Your task to perform on an android device: Open the map Image 0: 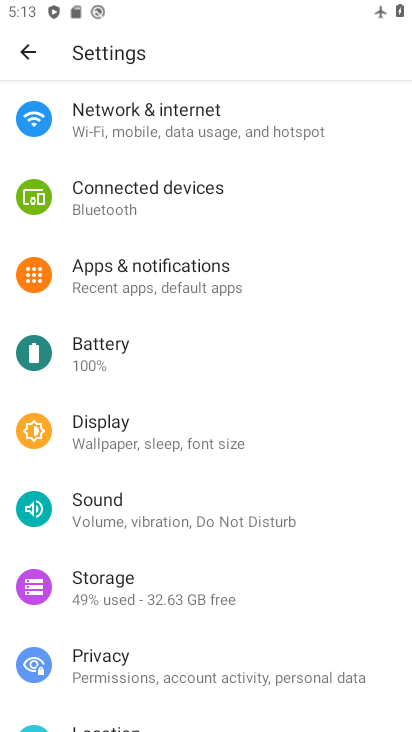
Step 0: press back button
Your task to perform on an android device: Open the map Image 1: 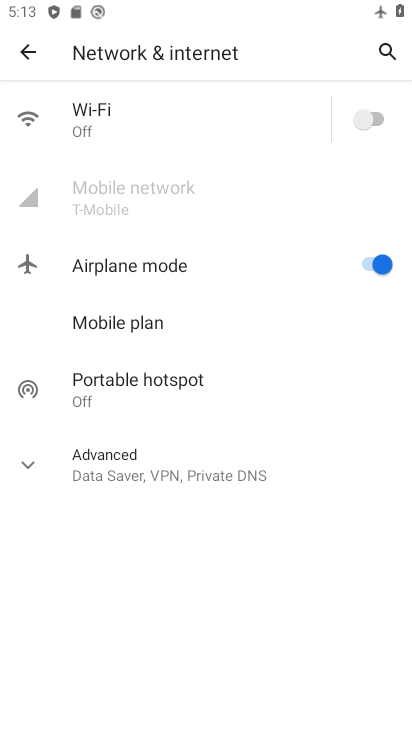
Step 1: press back button
Your task to perform on an android device: Open the map Image 2: 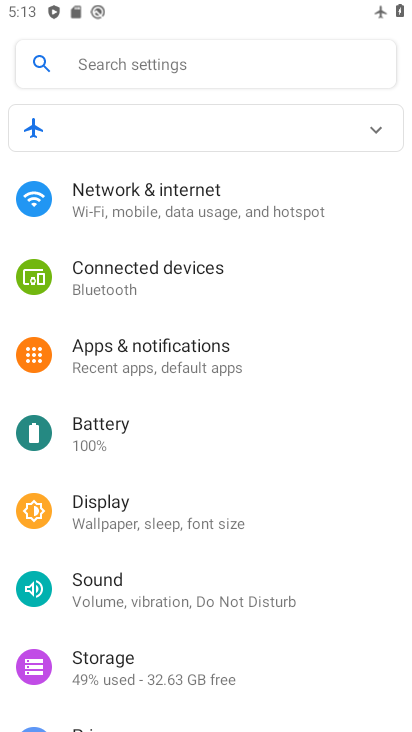
Step 2: press back button
Your task to perform on an android device: Open the map Image 3: 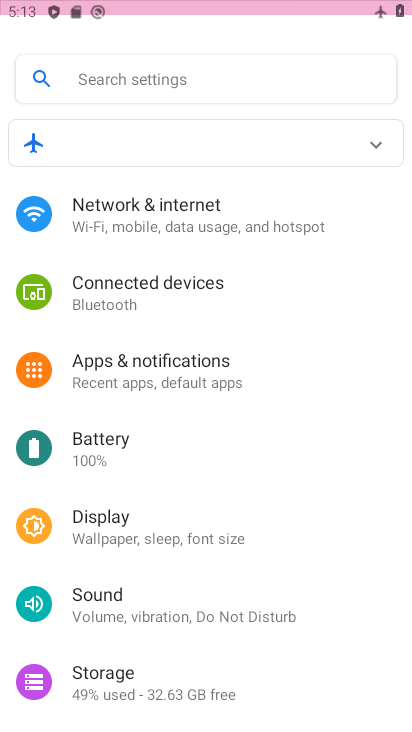
Step 3: press home button
Your task to perform on an android device: Open the map Image 4: 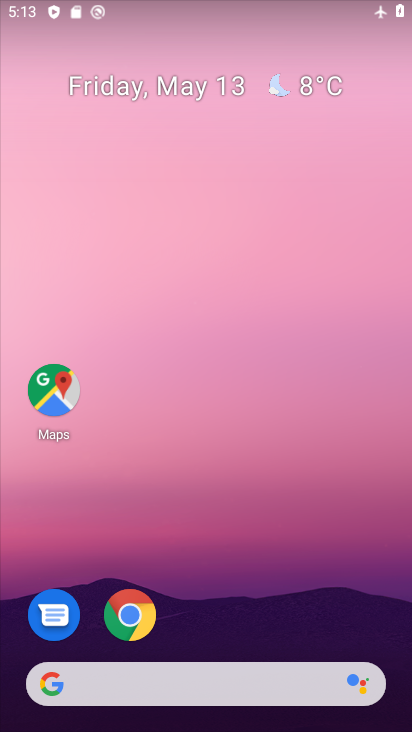
Step 4: click (56, 386)
Your task to perform on an android device: Open the map Image 5: 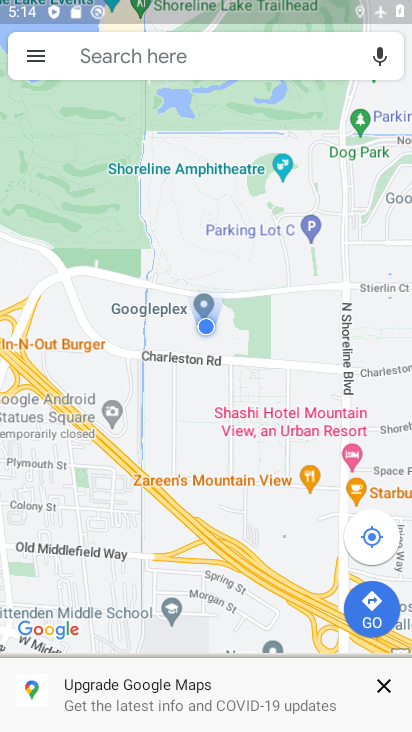
Step 5: task complete